Your task to perform on an android device: Open CNN.com Image 0: 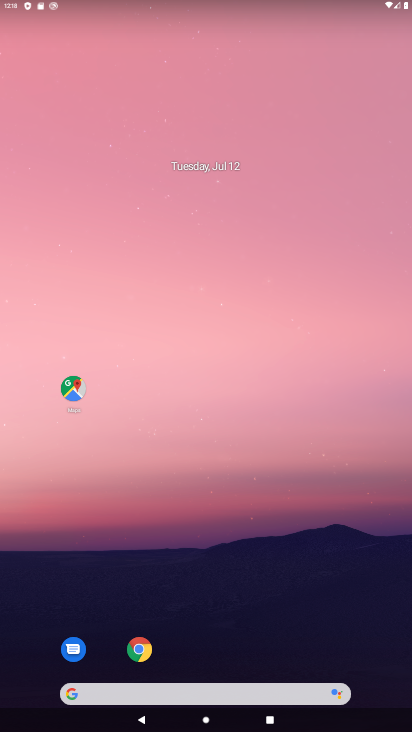
Step 0: click (142, 646)
Your task to perform on an android device: Open CNN.com Image 1: 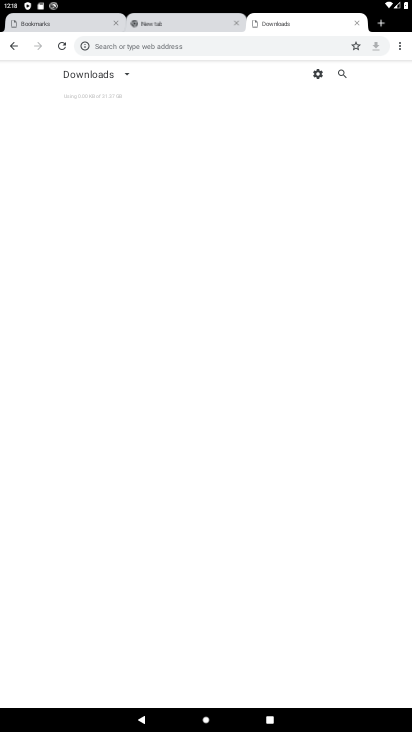
Step 1: click (155, 45)
Your task to perform on an android device: Open CNN.com Image 2: 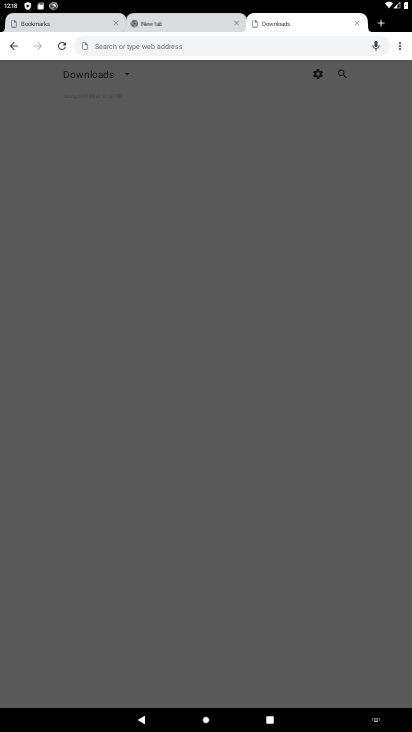
Step 2: type "CNN.COM"
Your task to perform on an android device: Open CNN.com Image 3: 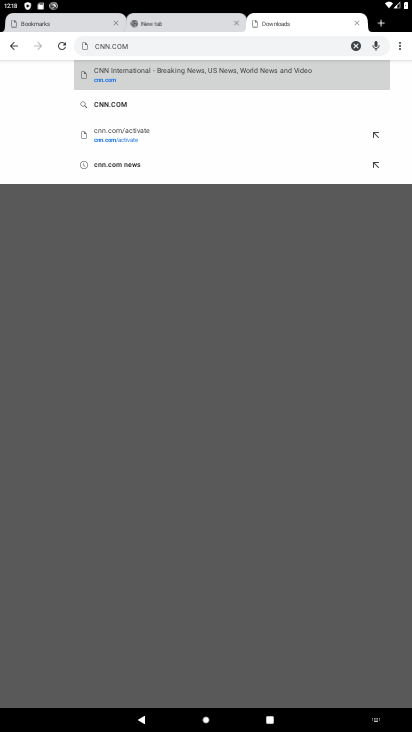
Step 3: click (195, 82)
Your task to perform on an android device: Open CNN.com Image 4: 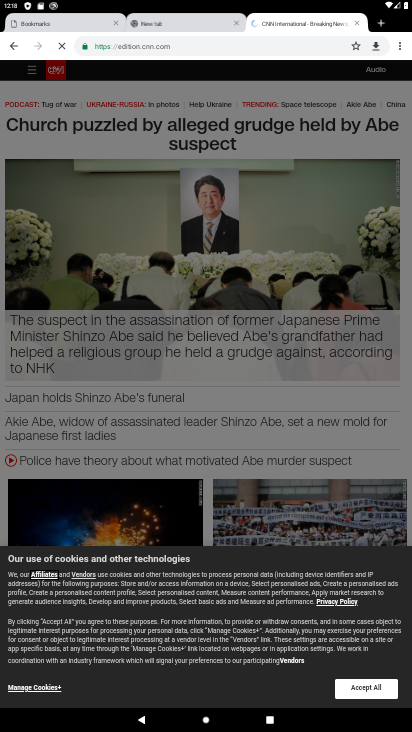
Step 4: task complete